Your task to perform on an android device: Open eBay Image 0: 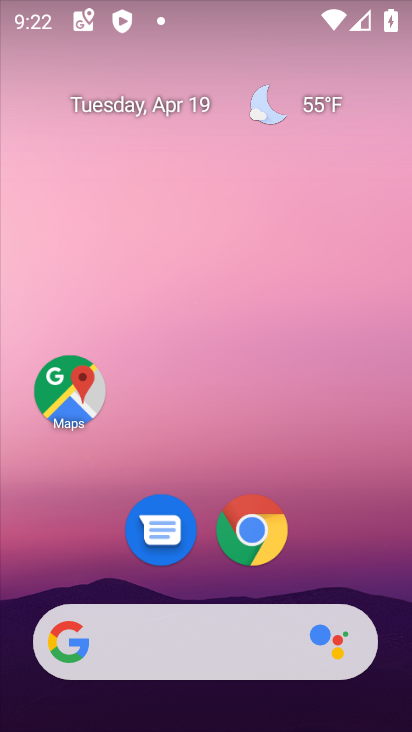
Step 0: click (177, 652)
Your task to perform on an android device: Open eBay Image 1: 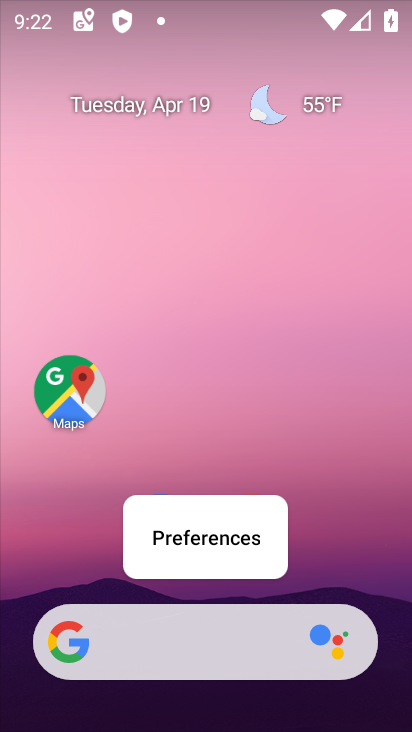
Step 1: click (185, 648)
Your task to perform on an android device: Open eBay Image 2: 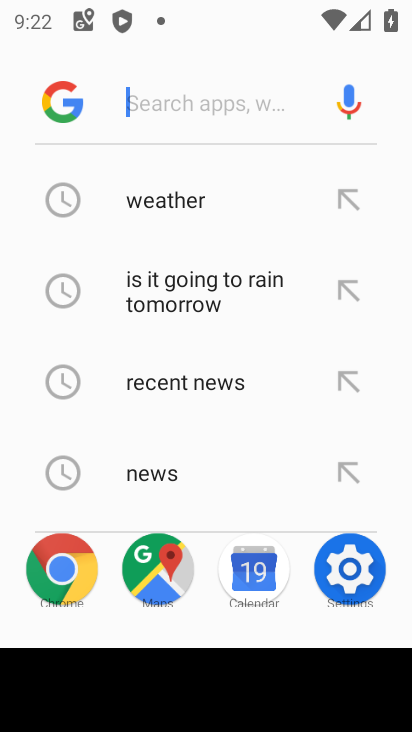
Step 2: type "ebay"
Your task to perform on an android device: Open eBay Image 3: 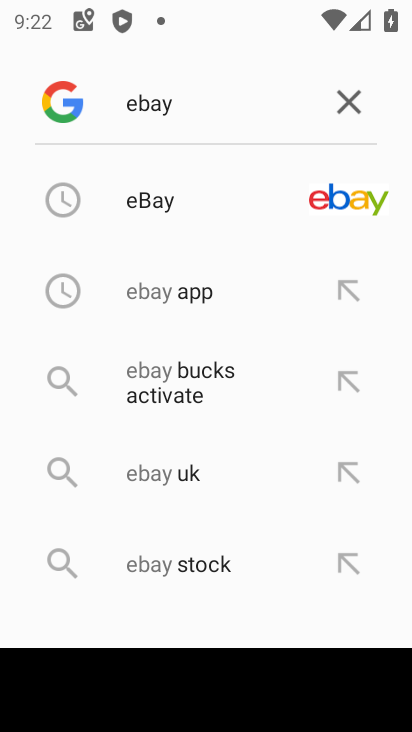
Step 3: click (170, 200)
Your task to perform on an android device: Open eBay Image 4: 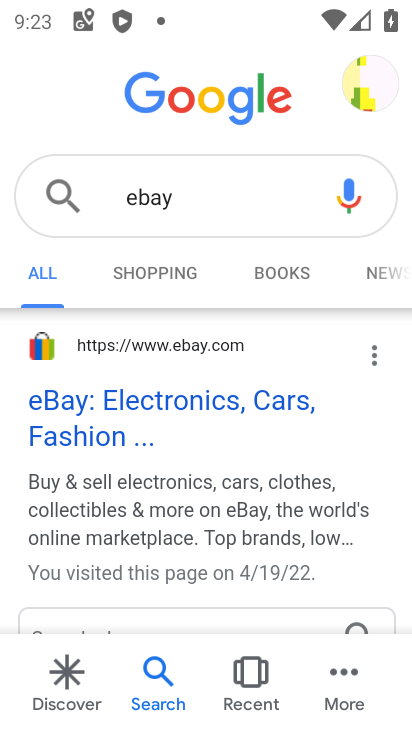
Step 4: task complete